Your task to perform on an android device: open app "Adobe Acrobat Reader: Edit PDF" (install if not already installed) Image 0: 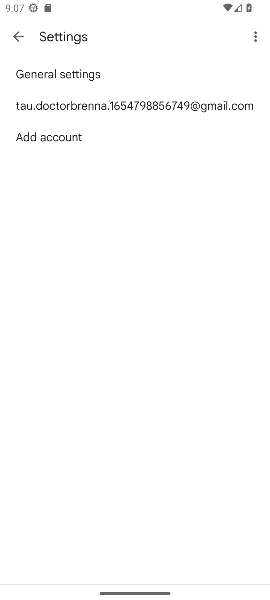
Step 0: drag from (122, 155) to (160, 387)
Your task to perform on an android device: open app "Adobe Acrobat Reader: Edit PDF" (install if not already installed) Image 1: 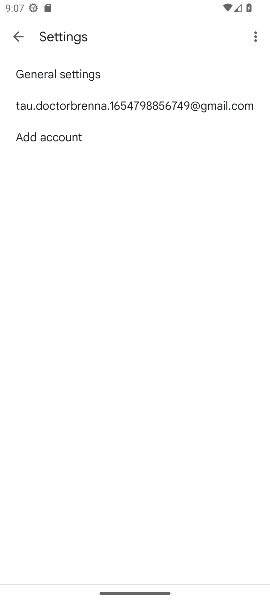
Step 1: press home button
Your task to perform on an android device: open app "Adobe Acrobat Reader: Edit PDF" (install if not already installed) Image 2: 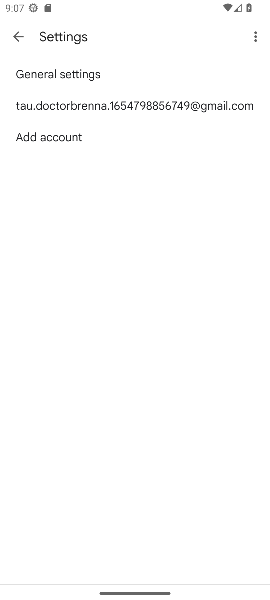
Step 2: drag from (105, 503) to (174, 29)
Your task to perform on an android device: open app "Adobe Acrobat Reader: Edit PDF" (install if not already installed) Image 3: 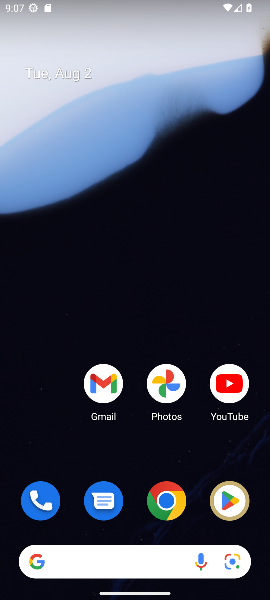
Step 3: click (233, 509)
Your task to perform on an android device: open app "Adobe Acrobat Reader: Edit PDF" (install if not already installed) Image 4: 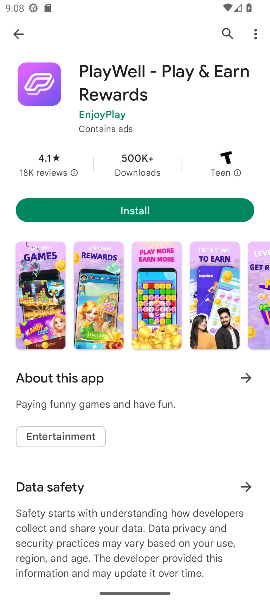
Step 4: click (218, 31)
Your task to perform on an android device: open app "Adobe Acrobat Reader: Edit PDF" (install if not already installed) Image 5: 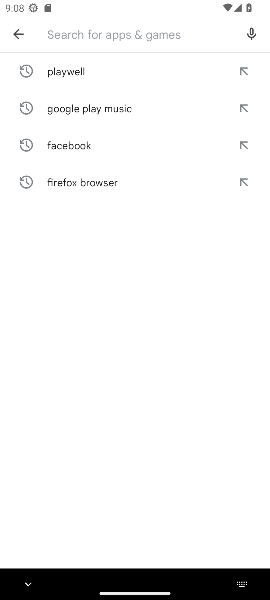
Step 5: type "Adobe Acrobat Reader: Edit PDF"
Your task to perform on an android device: open app "Adobe Acrobat Reader: Edit PDF" (install if not already installed) Image 6: 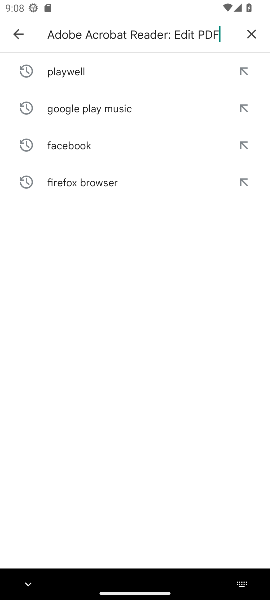
Step 6: type ""
Your task to perform on an android device: open app "Adobe Acrobat Reader: Edit PDF" (install if not already installed) Image 7: 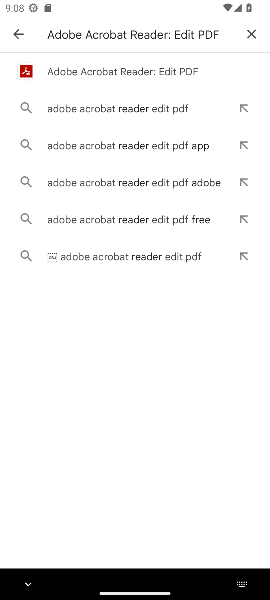
Step 7: click (68, 72)
Your task to perform on an android device: open app "Adobe Acrobat Reader: Edit PDF" (install if not already installed) Image 8: 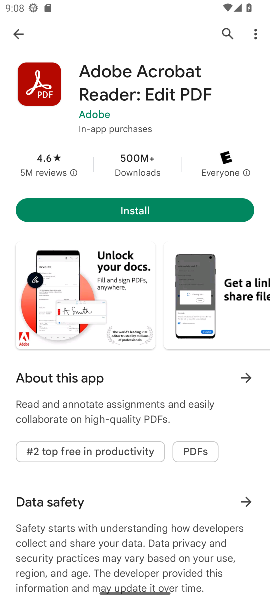
Step 8: drag from (153, 99) to (225, 498)
Your task to perform on an android device: open app "Adobe Acrobat Reader: Edit PDF" (install if not already installed) Image 9: 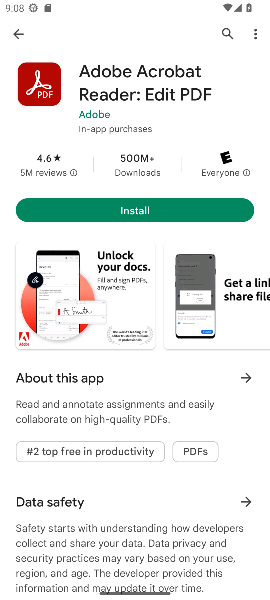
Step 9: drag from (133, 525) to (162, 203)
Your task to perform on an android device: open app "Adobe Acrobat Reader: Edit PDF" (install if not already installed) Image 10: 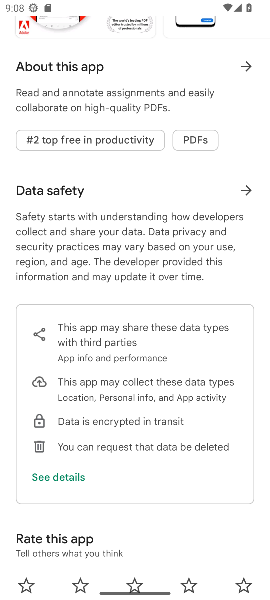
Step 10: drag from (175, 167) to (223, 597)
Your task to perform on an android device: open app "Adobe Acrobat Reader: Edit PDF" (install if not already installed) Image 11: 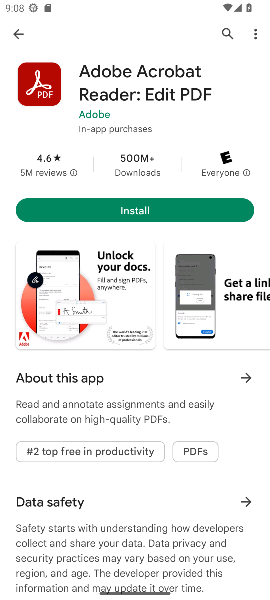
Step 11: drag from (138, 563) to (195, 599)
Your task to perform on an android device: open app "Adobe Acrobat Reader: Edit PDF" (install if not already installed) Image 12: 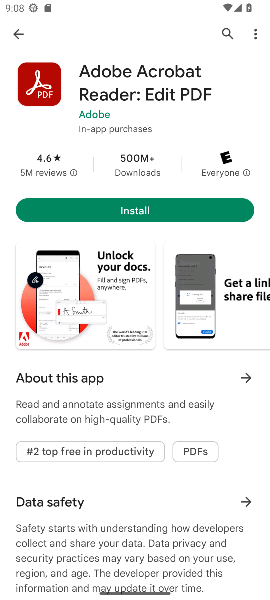
Step 12: drag from (151, 141) to (178, 552)
Your task to perform on an android device: open app "Adobe Acrobat Reader: Edit PDF" (install if not already installed) Image 13: 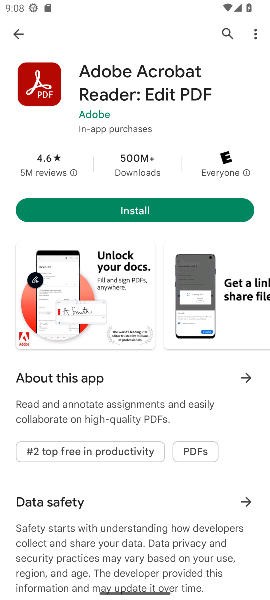
Step 13: drag from (171, 110) to (145, 439)
Your task to perform on an android device: open app "Adobe Acrobat Reader: Edit PDF" (install if not already installed) Image 14: 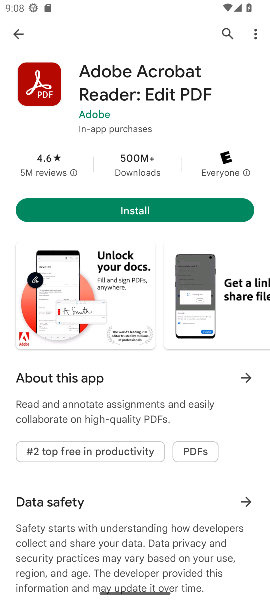
Step 14: click (99, 217)
Your task to perform on an android device: open app "Adobe Acrobat Reader: Edit PDF" (install if not already installed) Image 15: 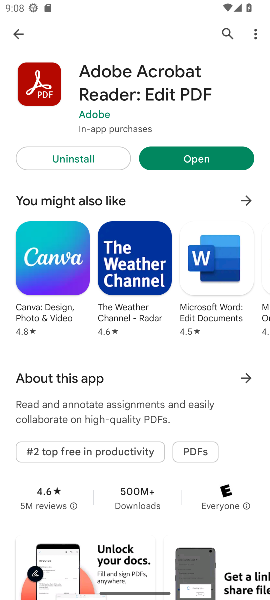
Step 15: drag from (128, 317) to (179, 590)
Your task to perform on an android device: open app "Adobe Acrobat Reader: Edit PDF" (install if not already installed) Image 16: 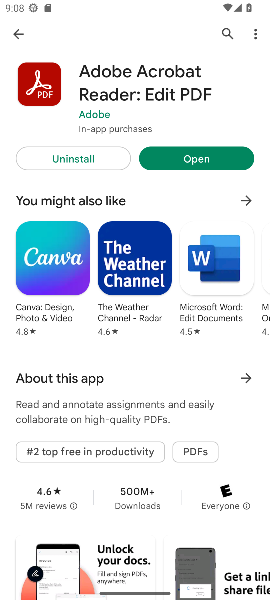
Step 16: click (186, 164)
Your task to perform on an android device: open app "Adobe Acrobat Reader: Edit PDF" (install if not already installed) Image 17: 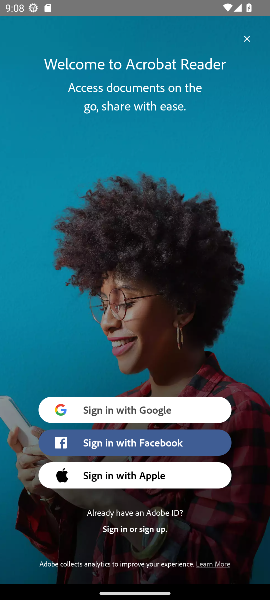
Step 17: task complete